Your task to perform on an android device: turn on the 24-hour format for clock Image 0: 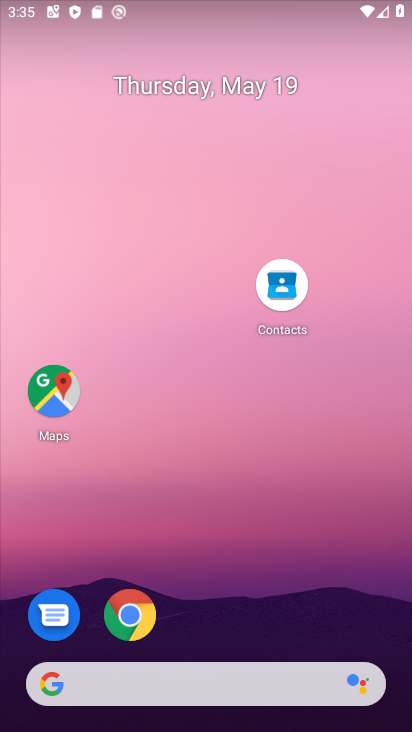
Step 0: drag from (222, 625) to (316, 121)
Your task to perform on an android device: turn on the 24-hour format for clock Image 1: 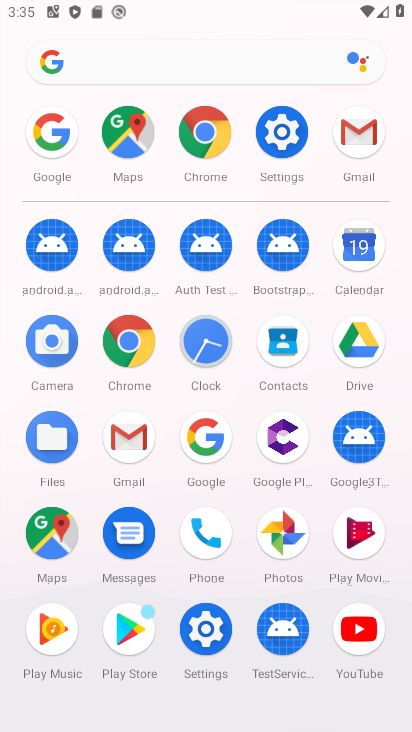
Step 1: click (213, 355)
Your task to perform on an android device: turn on the 24-hour format for clock Image 2: 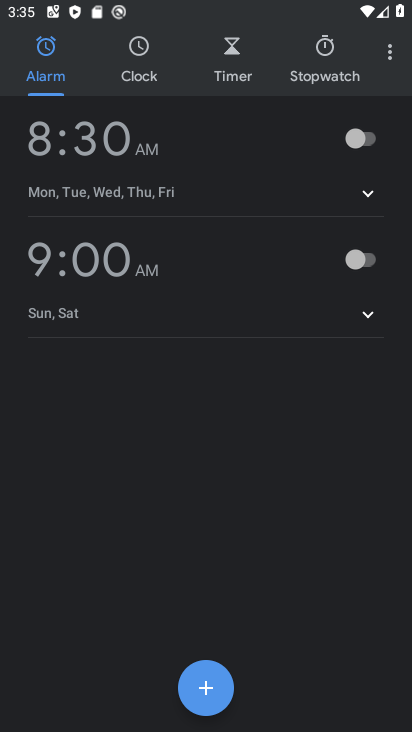
Step 2: click (391, 51)
Your task to perform on an android device: turn on the 24-hour format for clock Image 3: 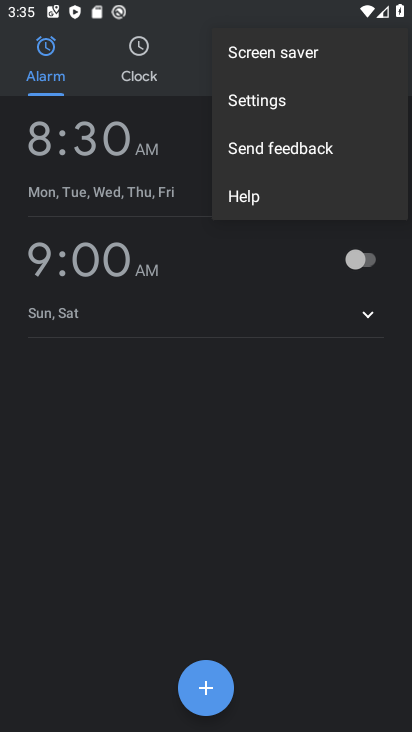
Step 3: click (263, 103)
Your task to perform on an android device: turn on the 24-hour format for clock Image 4: 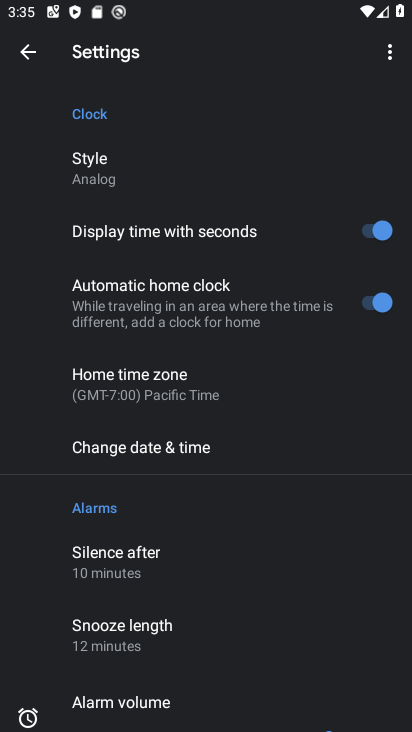
Step 4: drag from (218, 511) to (217, 346)
Your task to perform on an android device: turn on the 24-hour format for clock Image 5: 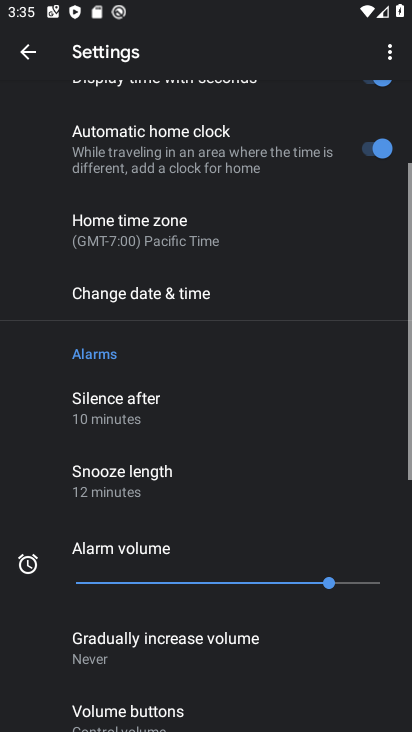
Step 5: click (215, 339)
Your task to perform on an android device: turn on the 24-hour format for clock Image 6: 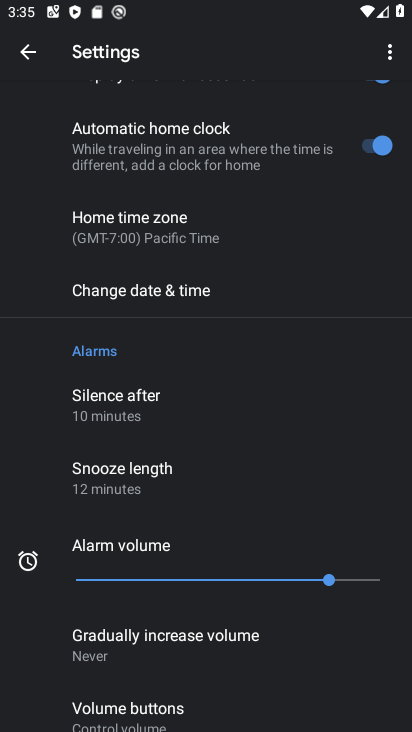
Step 6: drag from (209, 543) to (216, 329)
Your task to perform on an android device: turn on the 24-hour format for clock Image 7: 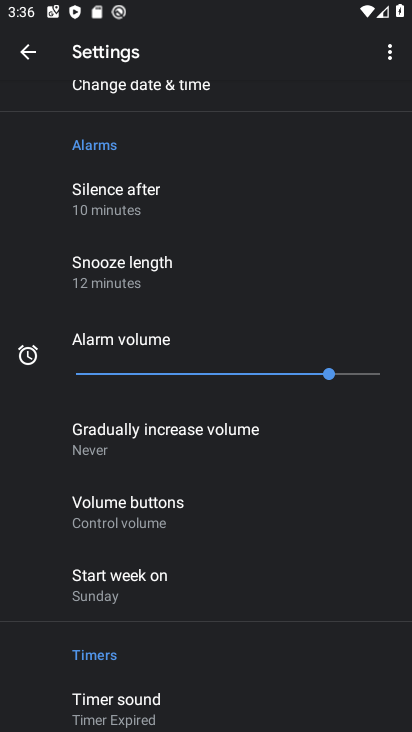
Step 7: drag from (222, 320) to (228, 614)
Your task to perform on an android device: turn on the 24-hour format for clock Image 8: 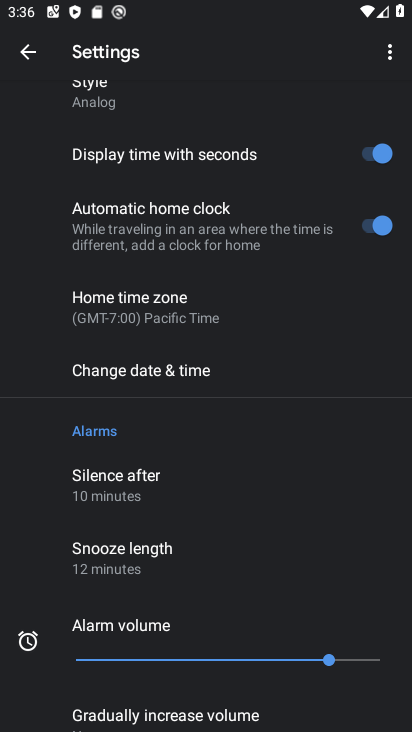
Step 8: click (197, 372)
Your task to perform on an android device: turn on the 24-hour format for clock Image 9: 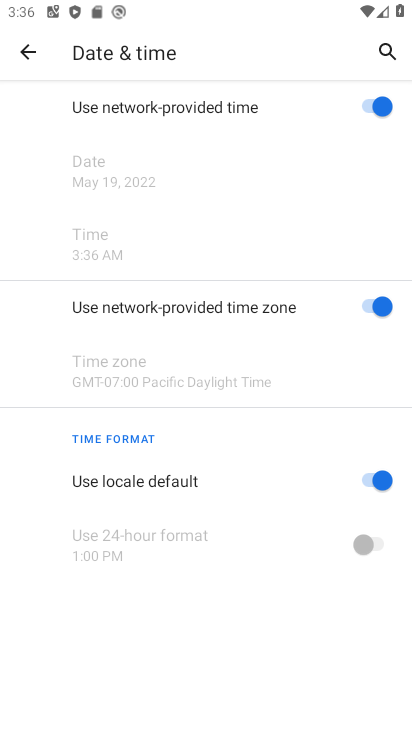
Step 9: task complete